Your task to perform on an android device: turn off location history Image 0: 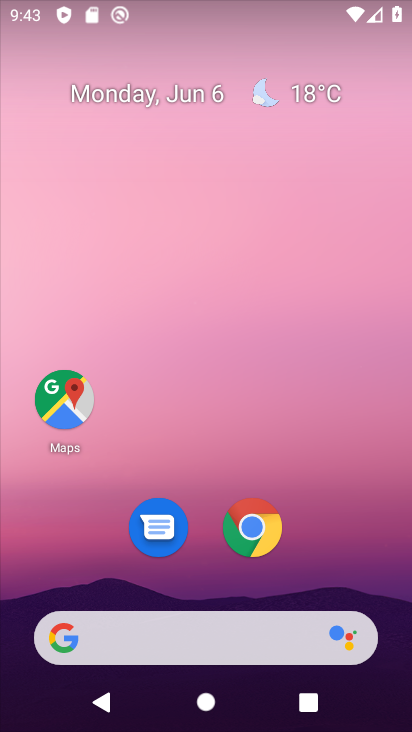
Step 0: click (83, 392)
Your task to perform on an android device: turn off location history Image 1: 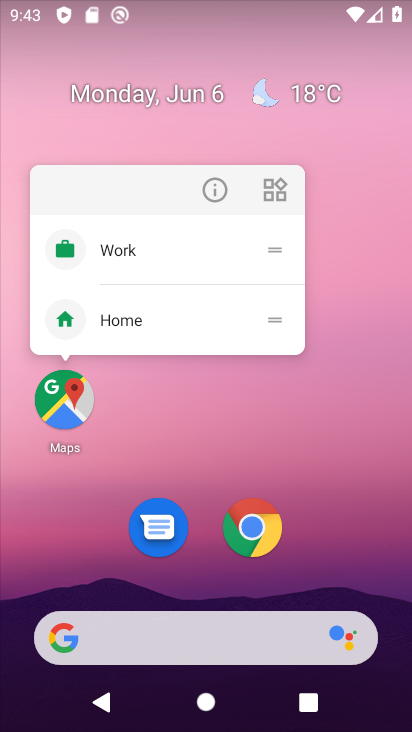
Step 1: click (83, 392)
Your task to perform on an android device: turn off location history Image 2: 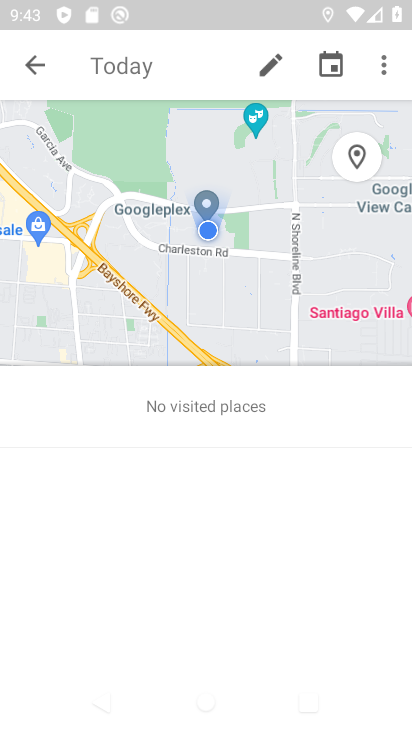
Step 2: click (385, 68)
Your task to perform on an android device: turn off location history Image 3: 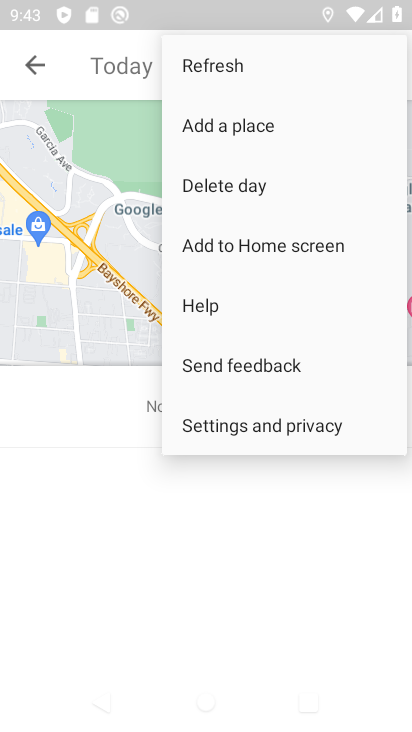
Step 3: click (277, 433)
Your task to perform on an android device: turn off location history Image 4: 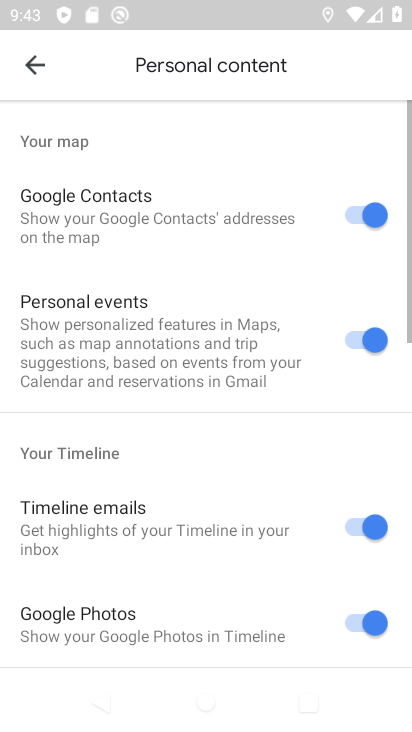
Step 4: drag from (207, 583) to (165, 144)
Your task to perform on an android device: turn off location history Image 5: 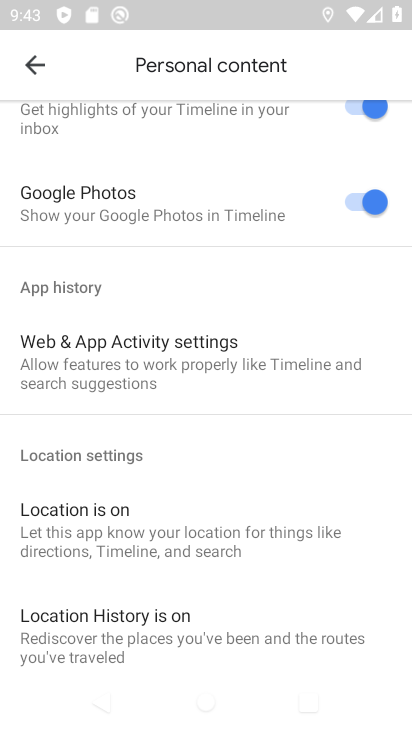
Step 5: click (212, 632)
Your task to perform on an android device: turn off location history Image 6: 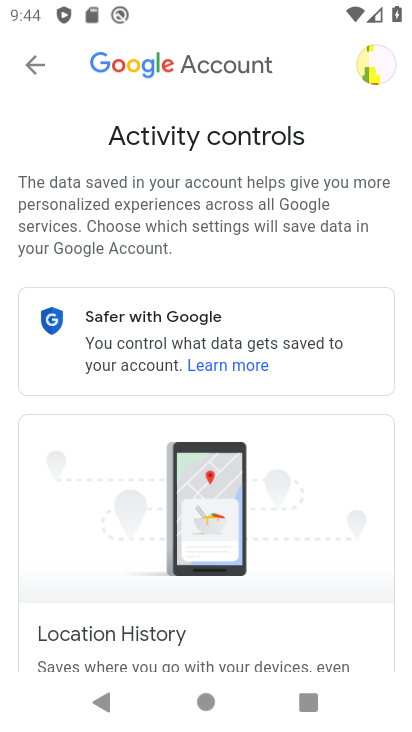
Step 6: drag from (280, 574) to (243, 130)
Your task to perform on an android device: turn off location history Image 7: 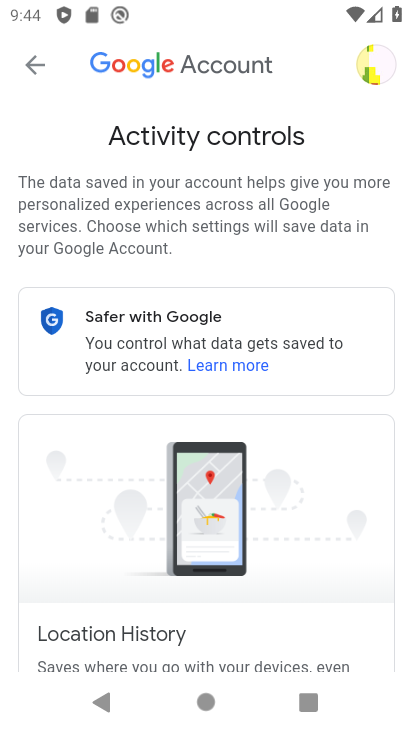
Step 7: drag from (316, 525) to (279, 240)
Your task to perform on an android device: turn off location history Image 8: 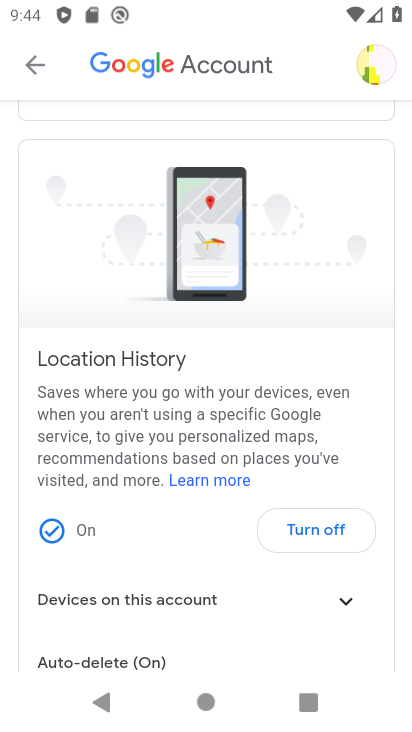
Step 8: click (333, 537)
Your task to perform on an android device: turn off location history Image 9: 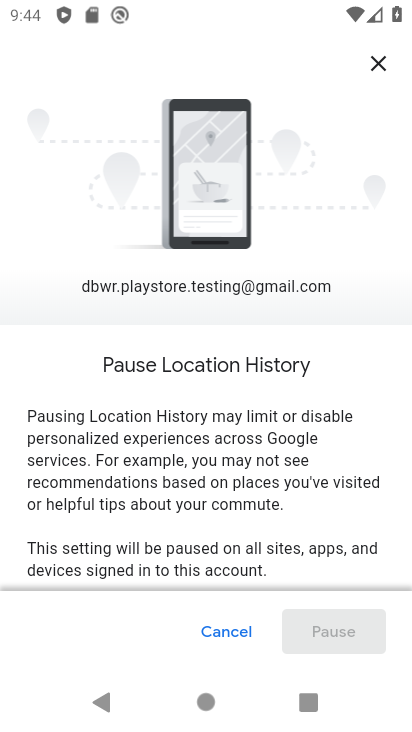
Step 9: drag from (333, 537) to (244, 213)
Your task to perform on an android device: turn off location history Image 10: 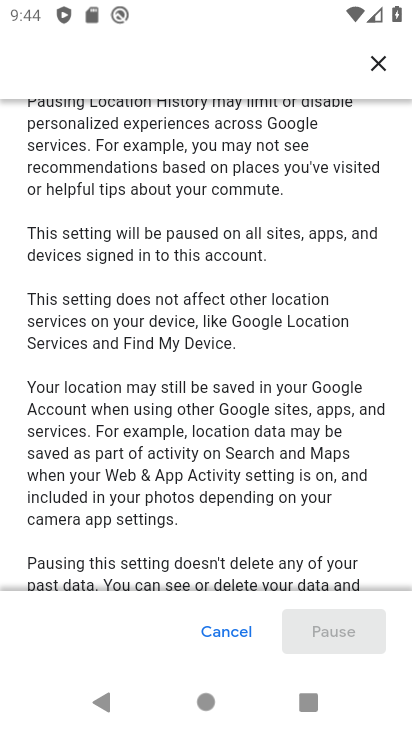
Step 10: drag from (300, 515) to (253, 214)
Your task to perform on an android device: turn off location history Image 11: 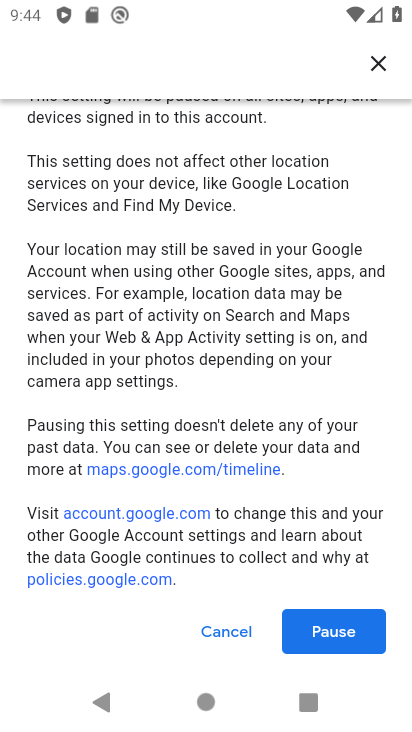
Step 11: click (313, 628)
Your task to perform on an android device: turn off location history Image 12: 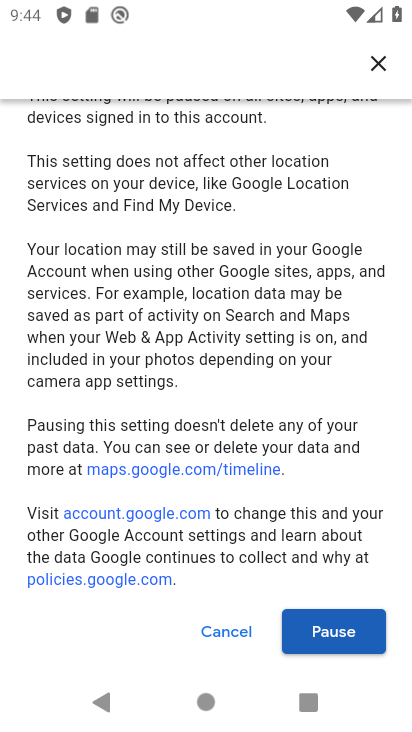
Step 12: click (336, 632)
Your task to perform on an android device: turn off location history Image 13: 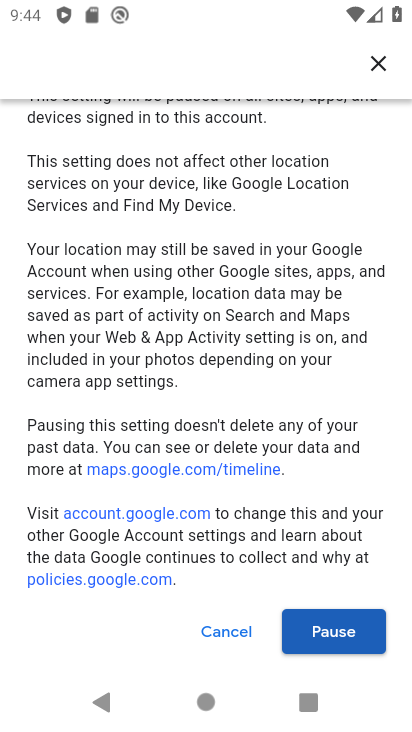
Step 13: click (336, 632)
Your task to perform on an android device: turn off location history Image 14: 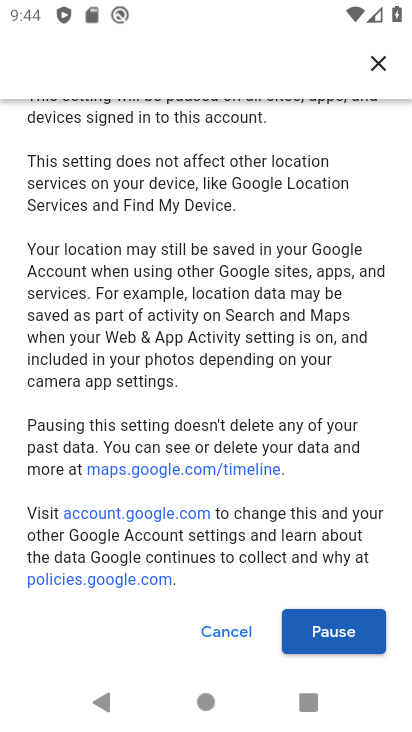
Step 14: click (336, 632)
Your task to perform on an android device: turn off location history Image 15: 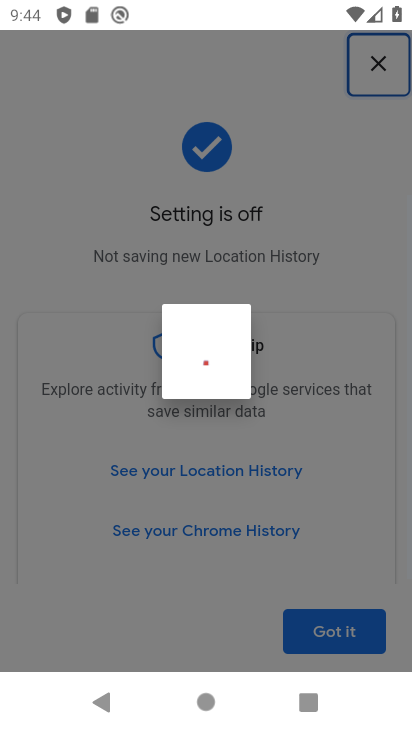
Step 15: click (336, 632)
Your task to perform on an android device: turn off location history Image 16: 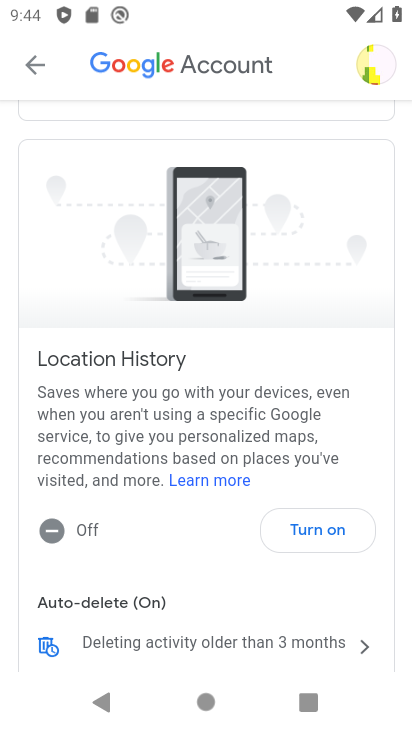
Step 16: task complete